Your task to perform on an android device: turn off javascript in the chrome app Image 0: 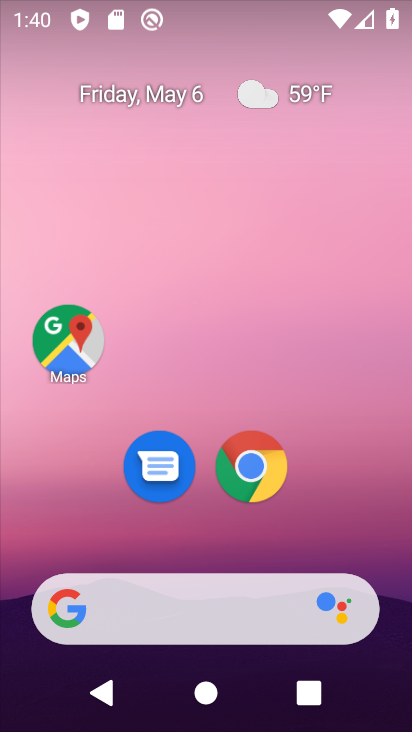
Step 0: click (248, 463)
Your task to perform on an android device: turn off javascript in the chrome app Image 1: 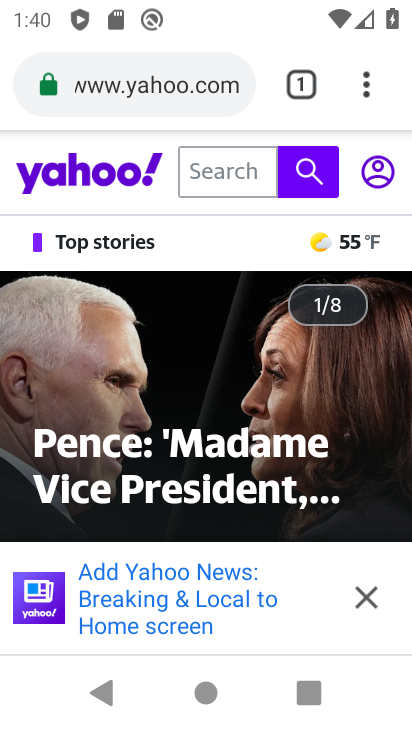
Step 1: click (371, 79)
Your task to perform on an android device: turn off javascript in the chrome app Image 2: 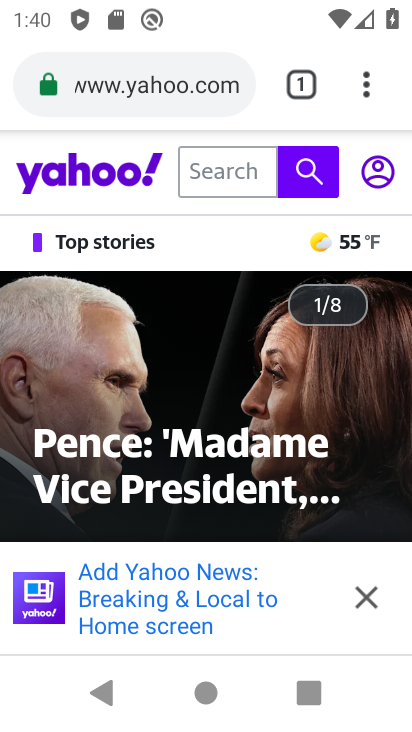
Step 2: click (368, 90)
Your task to perform on an android device: turn off javascript in the chrome app Image 3: 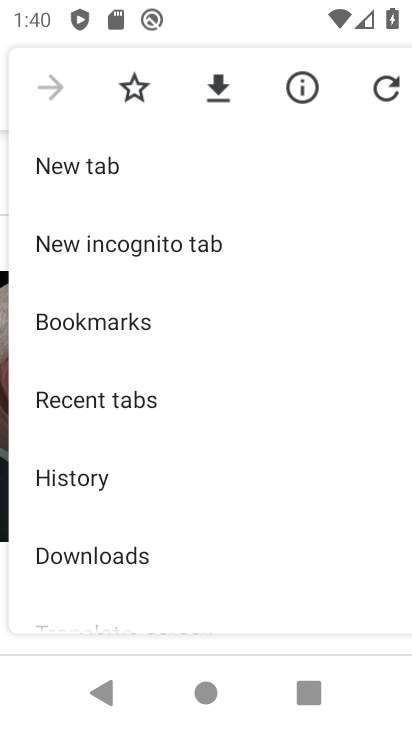
Step 3: drag from (165, 519) to (202, 125)
Your task to perform on an android device: turn off javascript in the chrome app Image 4: 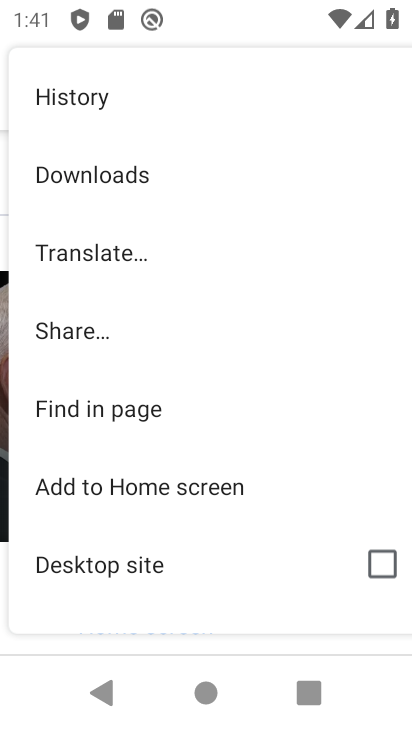
Step 4: drag from (140, 569) to (170, 116)
Your task to perform on an android device: turn off javascript in the chrome app Image 5: 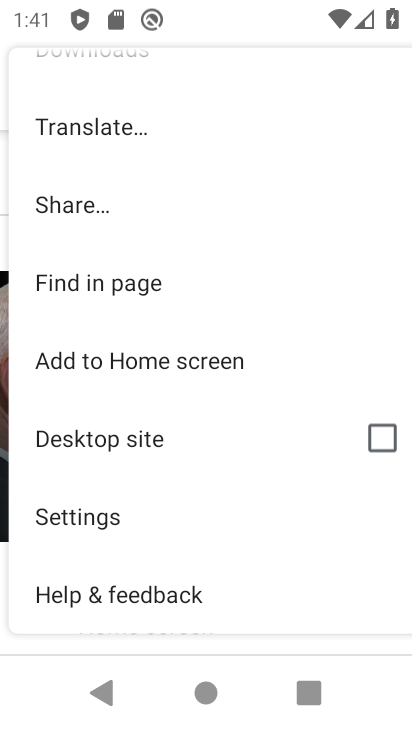
Step 5: click (134, 513)
Your task to perform on an android device: turn off javascript in the chrome app Image 6: 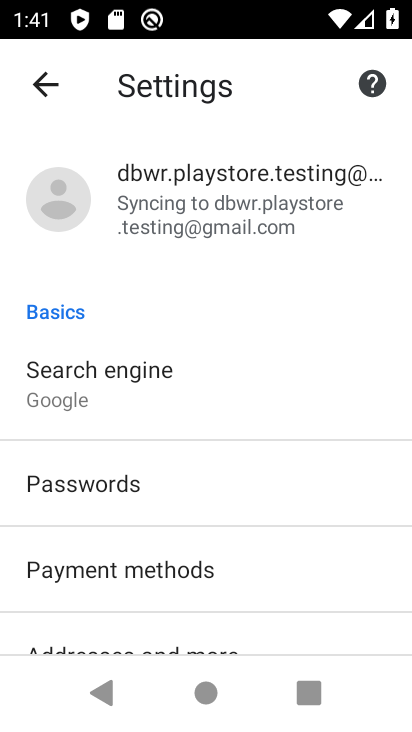
Step 6: drag from (186, 590) to (217, 233)
Your task to perform on an android device: turn off javascript in the chrome app Image 7: 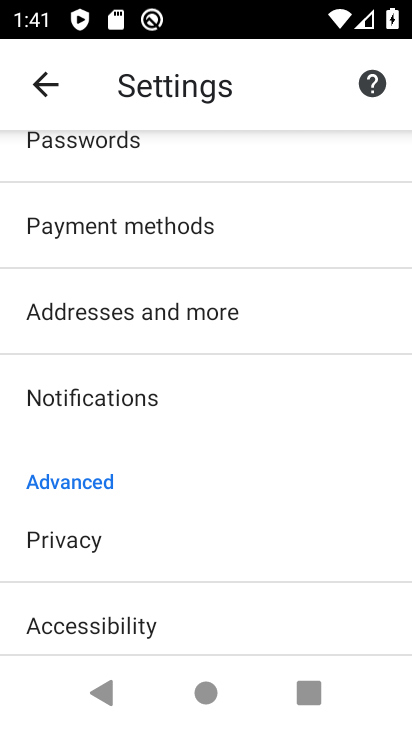
Step 7: drag from (162, 595) to (193, 219)
Your task to perform on an android device: turn off javascript in the chrome app Image 8: 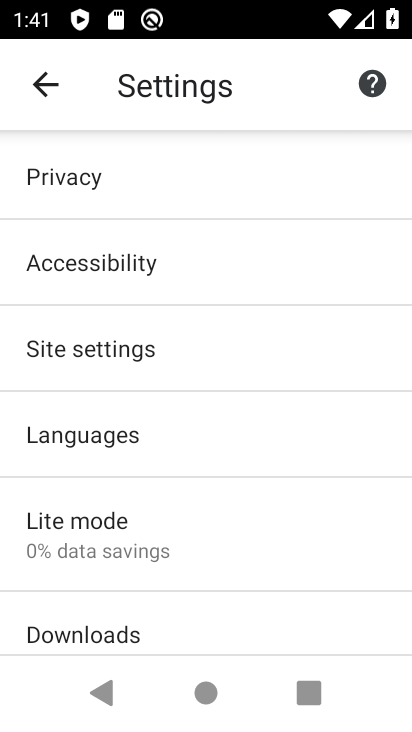
Step 8: click (144, 351)
Your task to perform on an android device: turn off javascript in the chrome app Image 9: 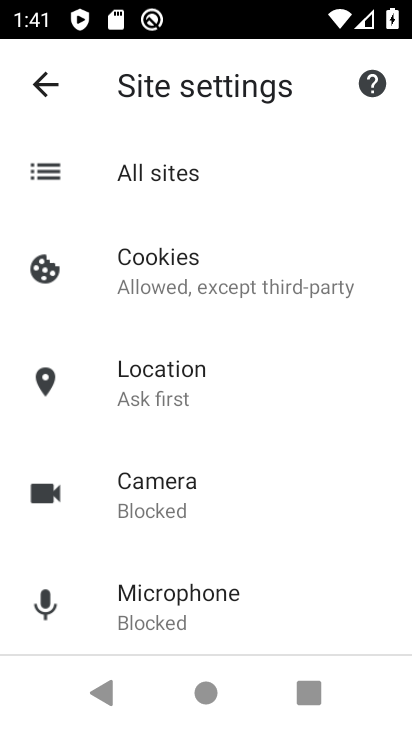
Step 9: drag from (168, 586) to (199, 329)
Your task to perform on an android device: turn off javascript in the chrome app Image 10: 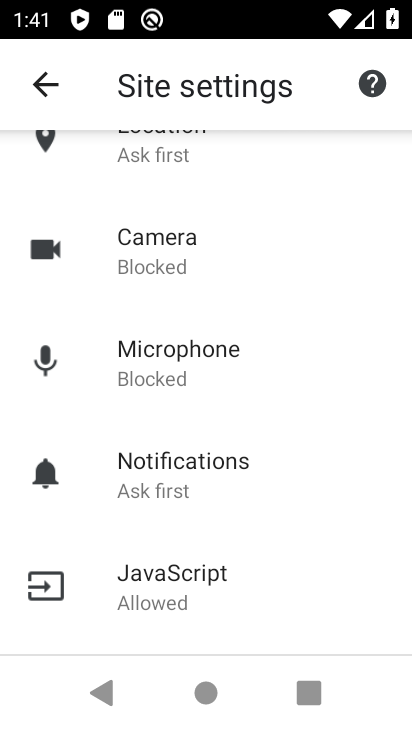
Step 10: click (187, 587)
Your task to perform on an android device: turn off javascript in the chrome app Image 11: 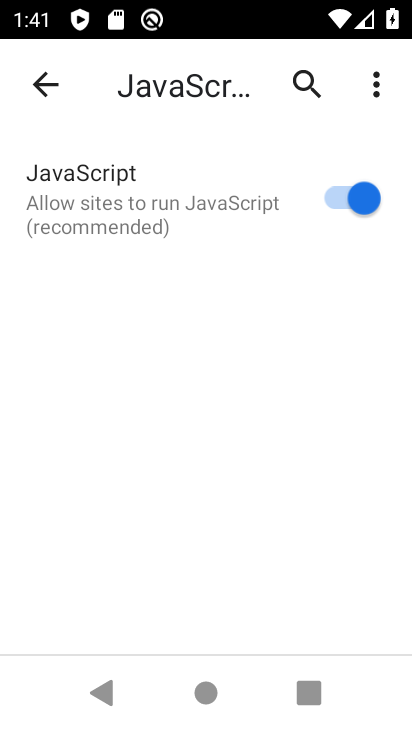
Step 11: click (337, 193)
Your task to perform on an android device: turn off javascript in the chrome app Image 12: 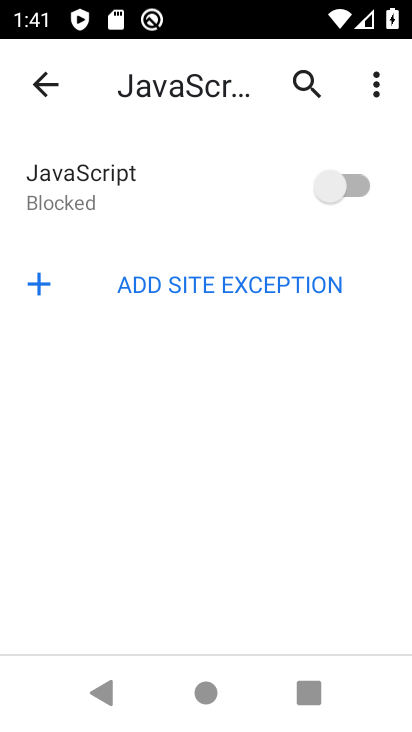
Step 12: task complete